Your task to perform on an android device: turn off airplane mode Image 0: 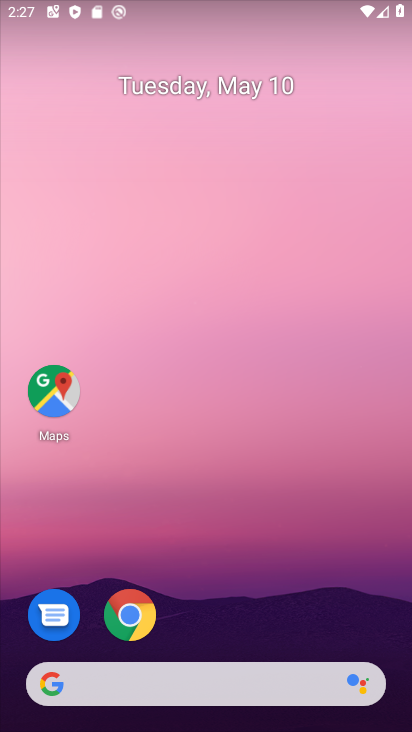
Step 0: drag from (149, 3) to (160, 506)
Your task to perform on an android device: turn off airplane mode Image 1: 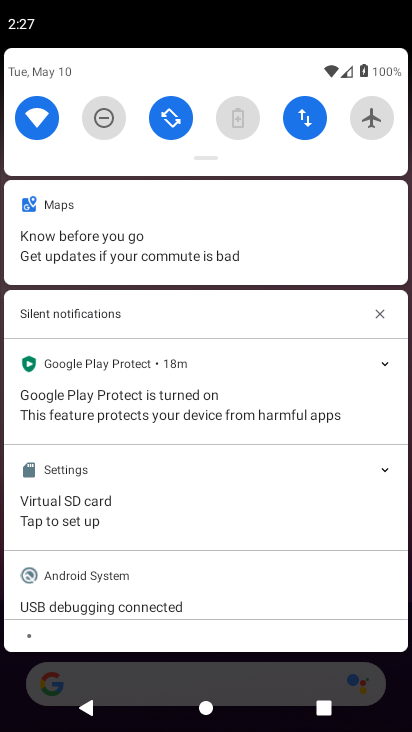
Step 1: task complete